Your task to perform on an android device: check android version Image 0: 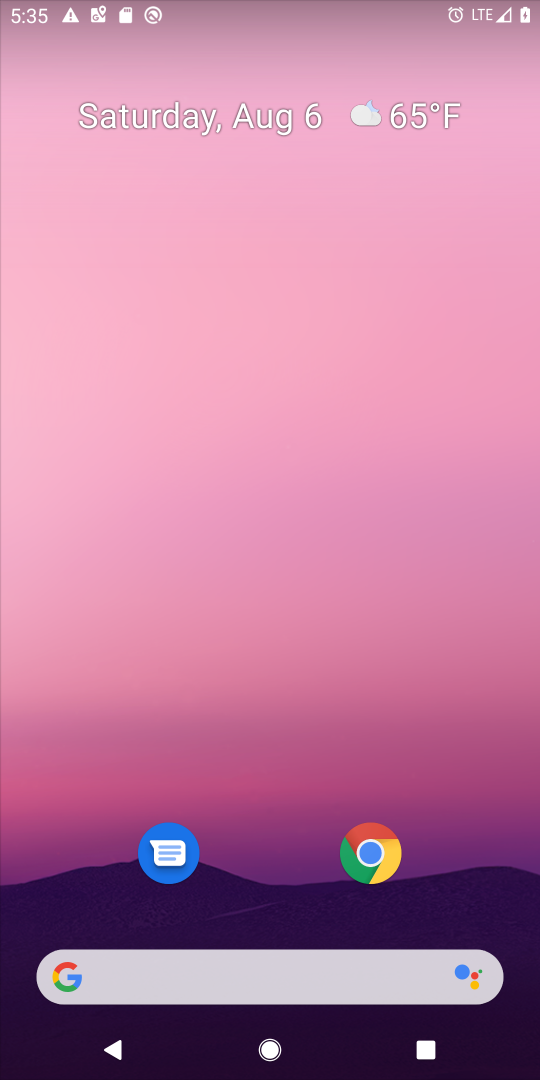
Step 0: drag from (283, 929) to (372, 180)
Your task to perform on an android device: check android version Image 1: 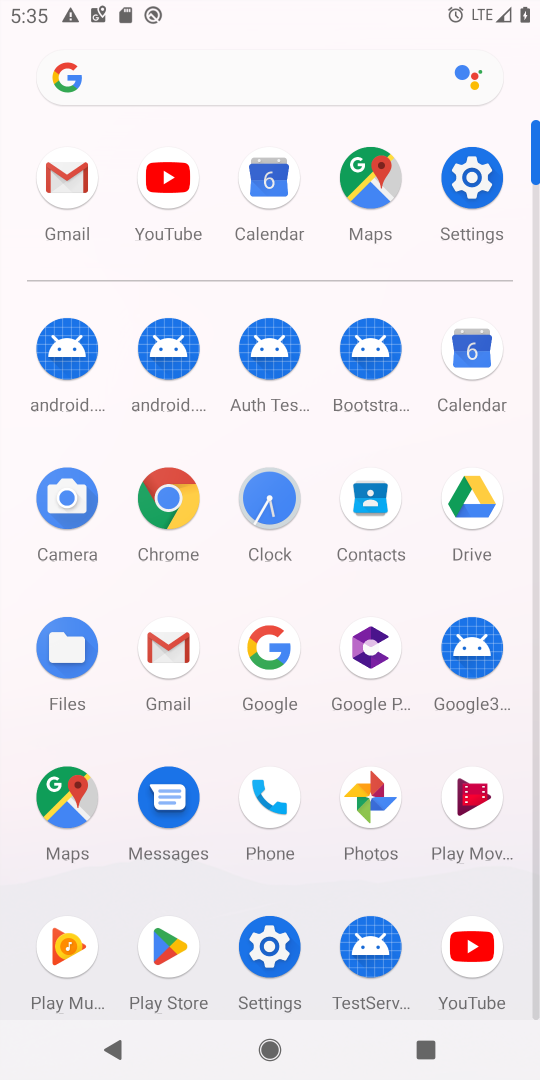
Step 1: click (464, 192)
Your task to perform on an android device: check android version Image 2: 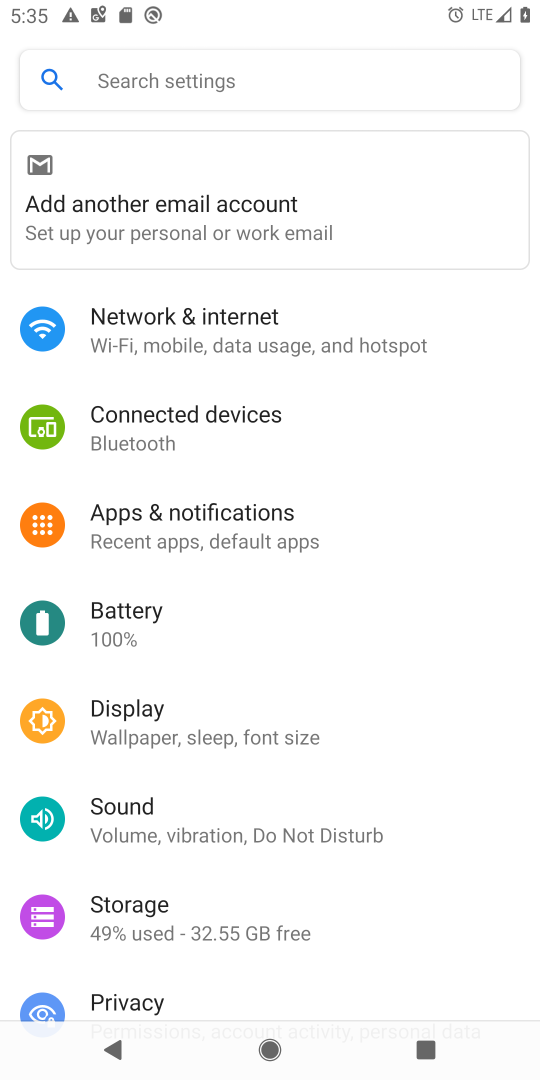
Step 2: drag from (216, 952) to (382, 180)
Your task to perform on an android device: check android version Image 3: 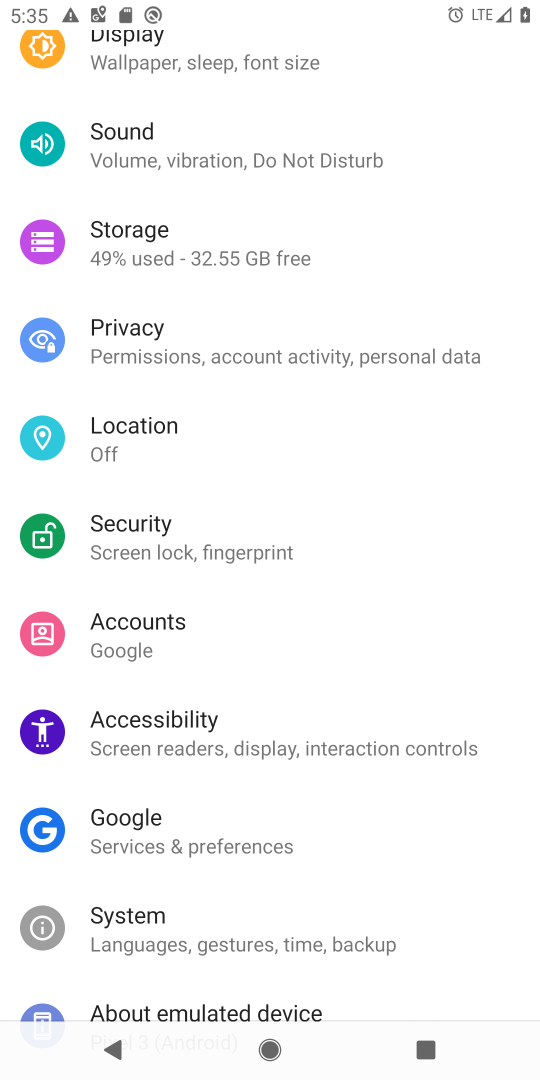
Step 3: drag from (229, 984) to (448, 74)
Your task to perform on an android device: check android version Image 4: 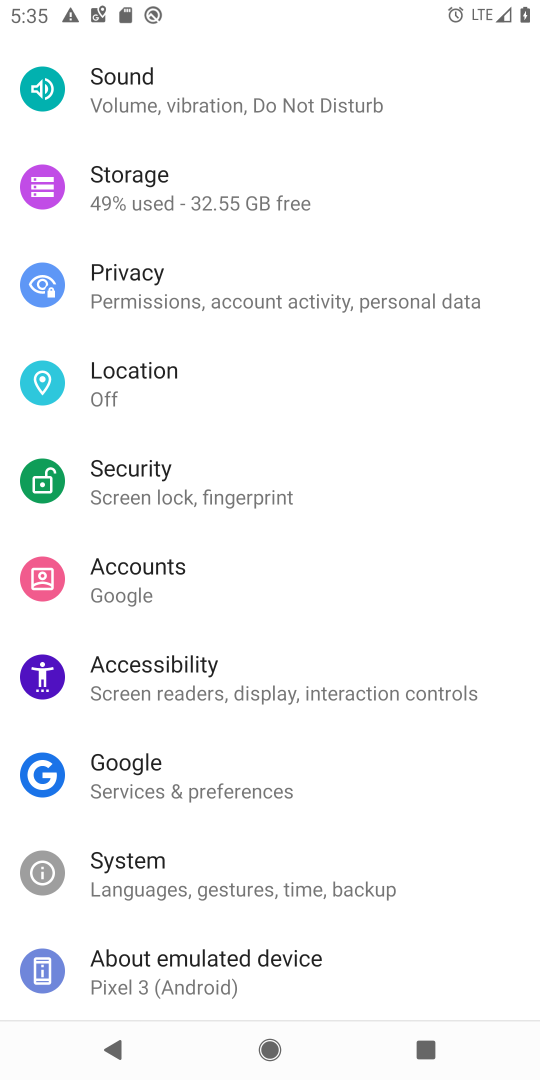
Step 4: click (197, 971)
Your task to perform on an android device: check android version Image 5: 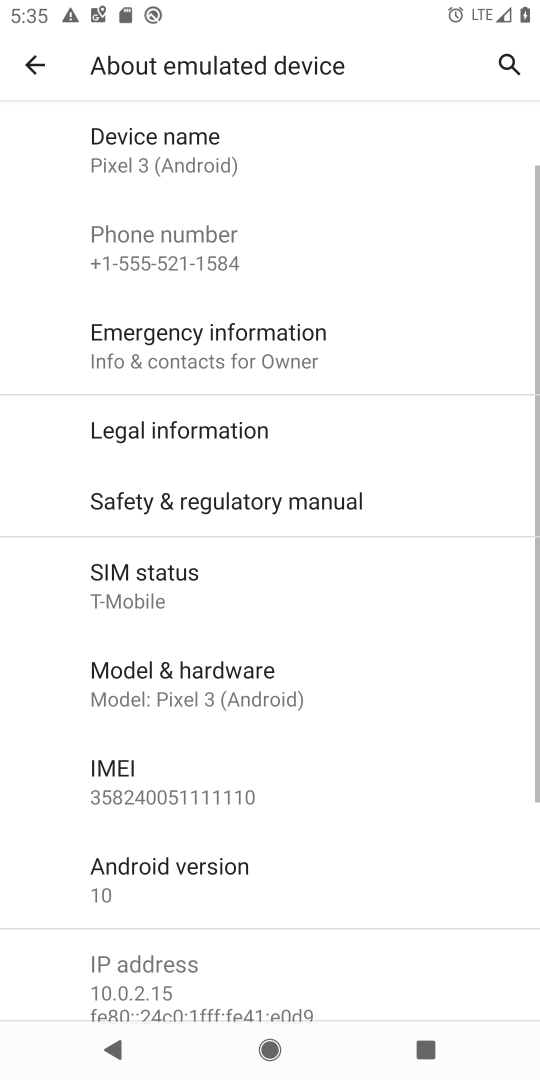
Step 5: click (164, 865)
Your task to perform on an android device: check android version Image 6: 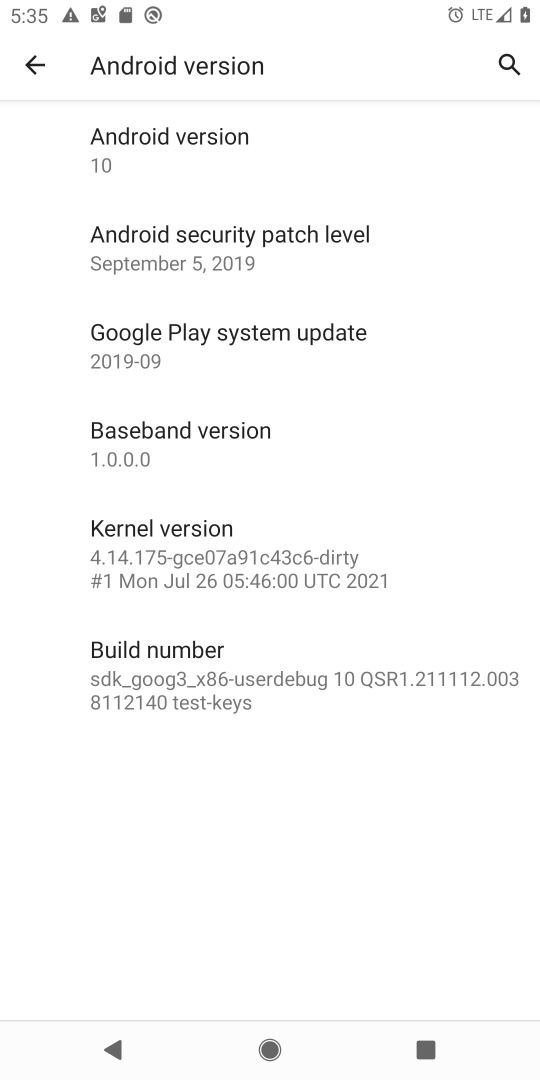
Step 6: task complete